Your task to perform on an android device: Search for Mexican restaurants on Maps Image 0: 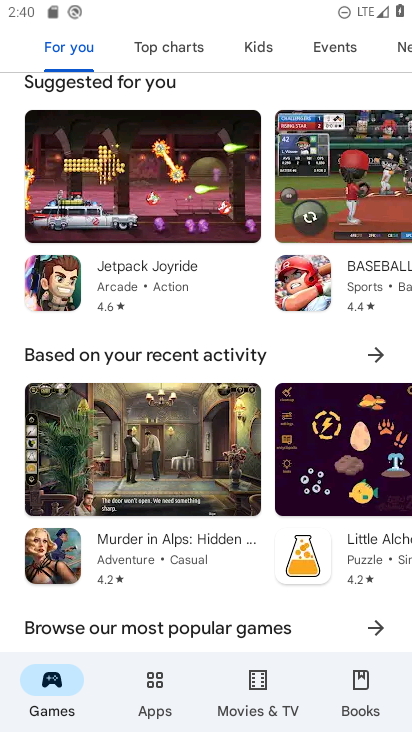
Step 0: press home button
Your task to perform on an android device: Search for Mexican restaurants on Maps Image 1: 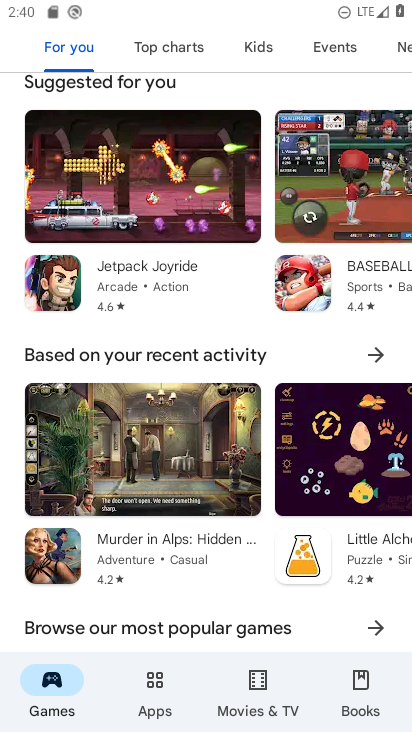
Step 1: drag from (212, 425) to (237, 13)
Your task to perform on an android device: Search for Mexican restaurants on Maps Image 2: 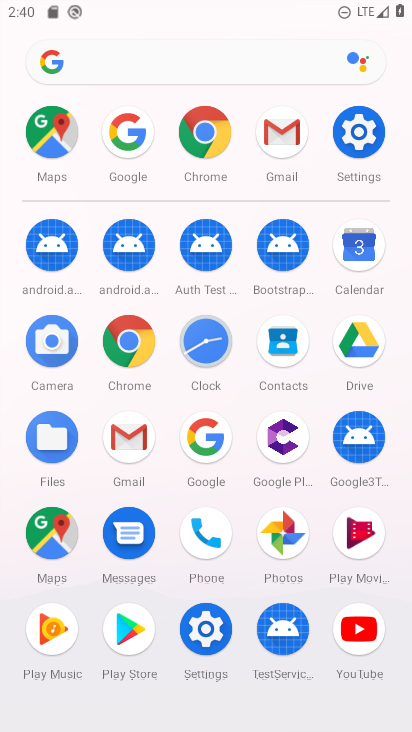
Step 2: click (45, 536)
Your task to perform on an android device: Search for Mexican restaurants on Maps Image 3: 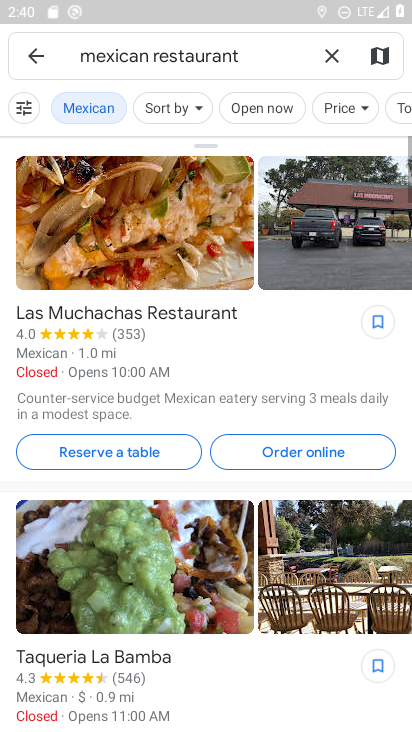
Step 3: task complete